Your task to perform on an android device: Search for apple airpods pro on bestbuy.com, select the first entry, add it to the cart, then select checkout. Image 0: 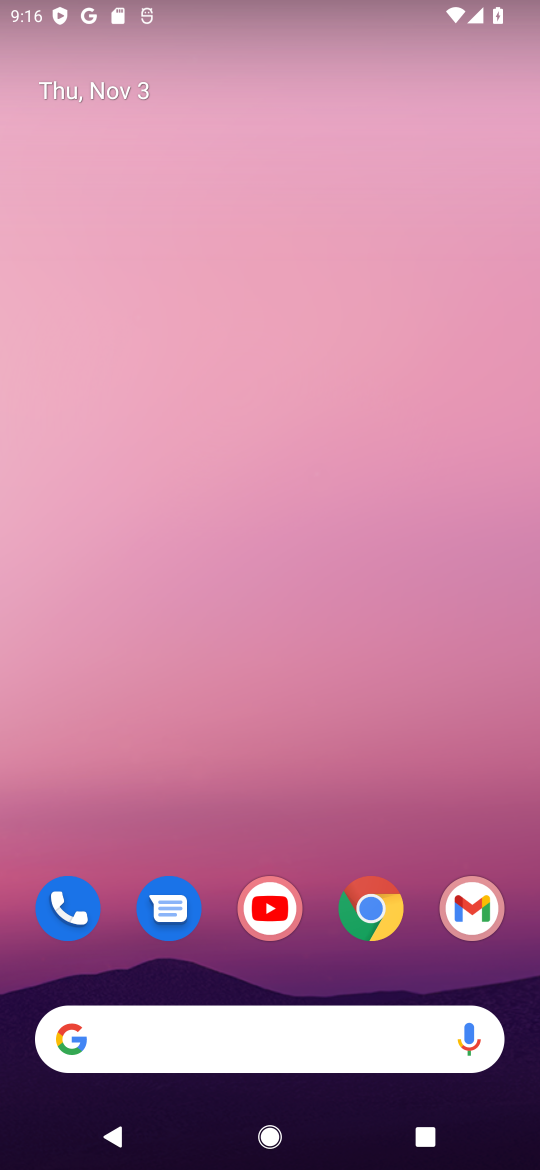
Step 0: click (374, 910)
Your task to perform on an android device: Search for apple airpods pro on bestbuy.com, select the first entry, add it to the cart, then select checkout. Image 1: 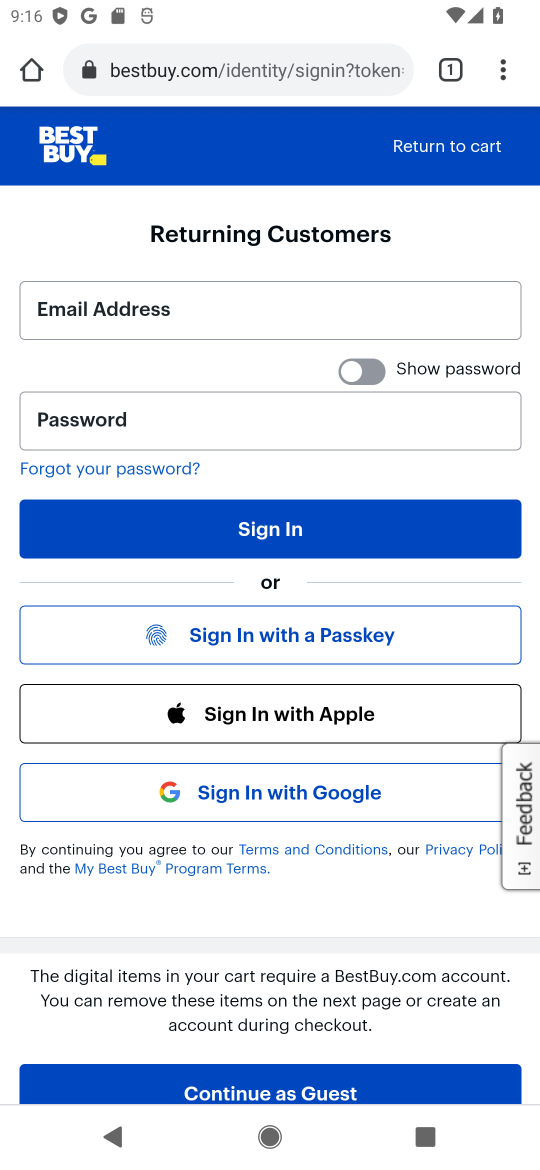
Step 1: press back button
Your task to perform on an android device: Search for apple airpods pro on bestbuy.com, select the first entry, add it to the cart, then select checkout. Image 2: 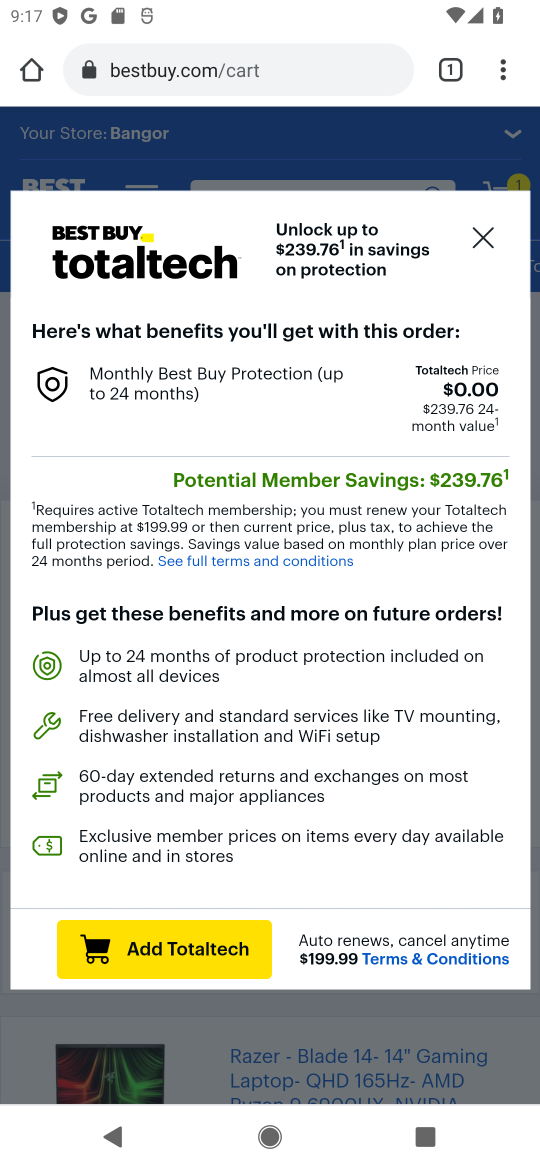
Step 2: click (487, 239)
Your task to perform on an android device: Search for apple airpods pro on bestbuy.com, select the first entry, add it to the cart, then select checkout. Image 3: 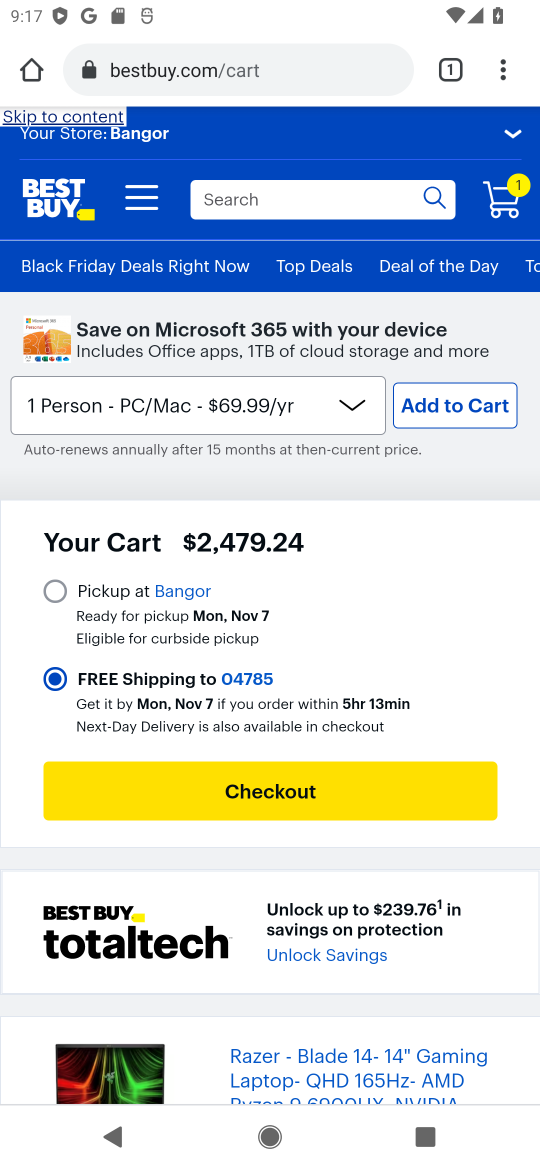
Step 3: click (399, 187)
Your task to perform on an android device: Search for apple airpods pro on bestbuy.com, select the first entry, add it to the cart, then select checkout. Image 4: 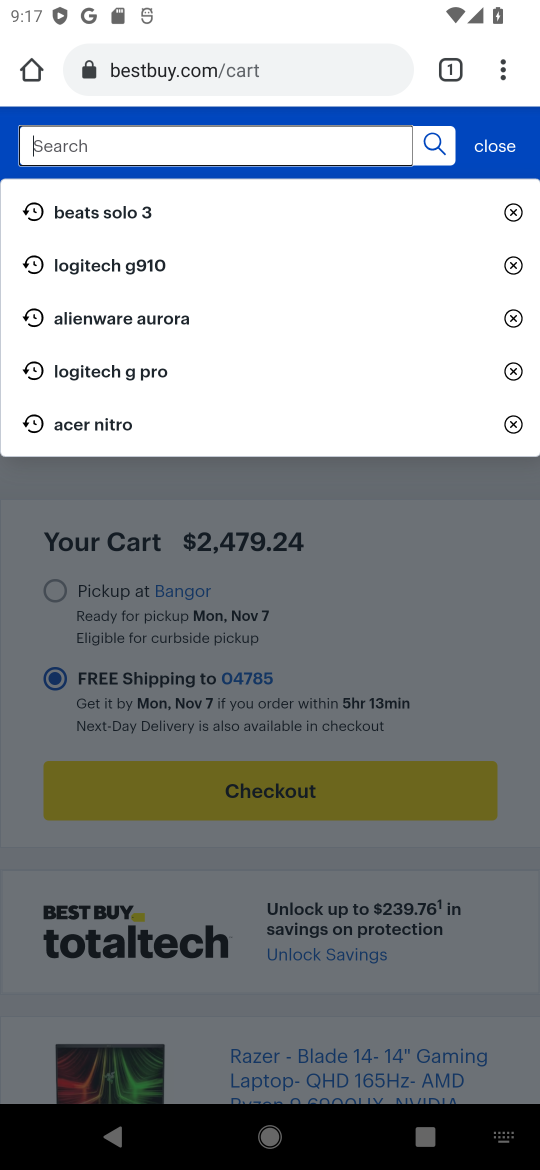
Step 4: type "apple airpods pro"
Your task to perform on an android device: Search for apple airpods pro on bestbuy.com, select the first entry, add it to the cart, then select checkout. Image 5: 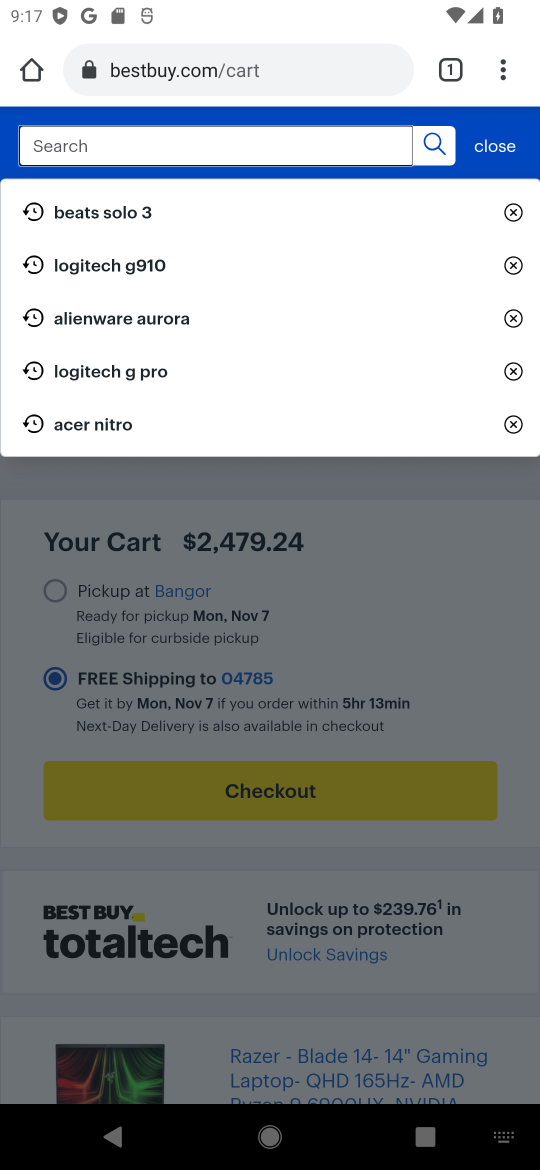
Step 5: press enter
Your task to perform on an android device: Search for apple airpods pro on bestbuy.com, select the first entry, add it to the cart, then select checkout. Image 6: 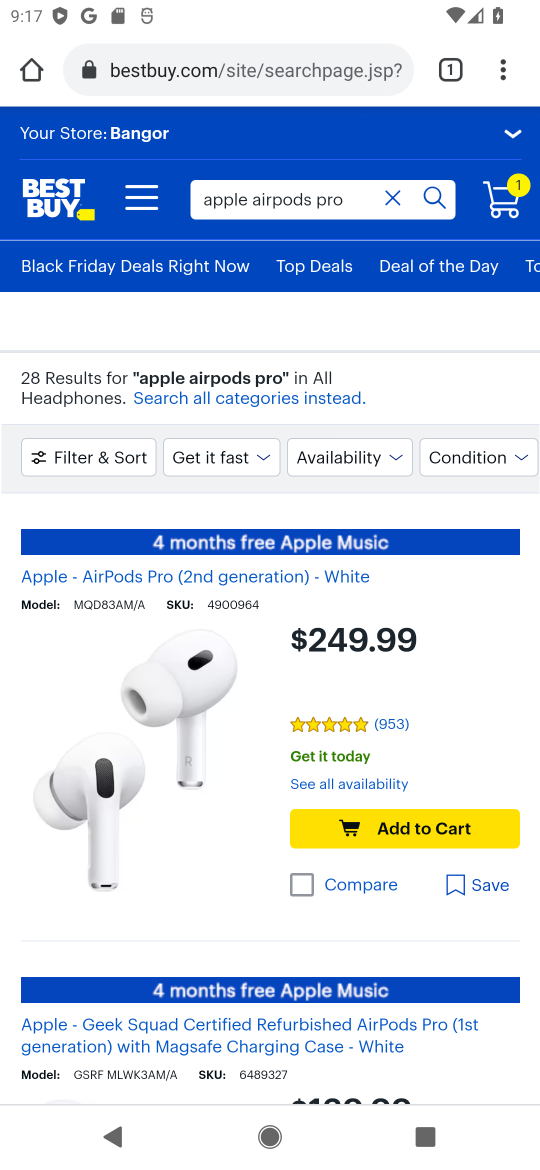
Step 6: click (122, 740)
Your task to perform on an android device: Search for apple airpods pro on bestbuy.com, select the first entry, add it to the cart, then select checkout. Image 7: 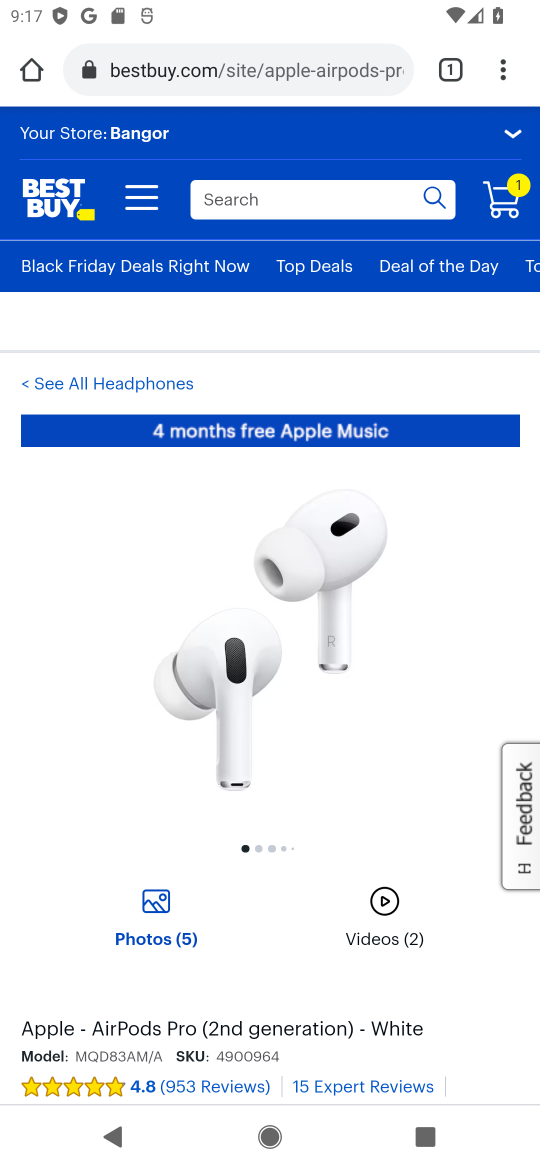
Step 7: drag from (274, 685) to (282, 390)
Your task to perform on an android device: Search for apple airpods pro on bestbuy.com, select the first entry, add it to the cart, then select checkout. Image 8: 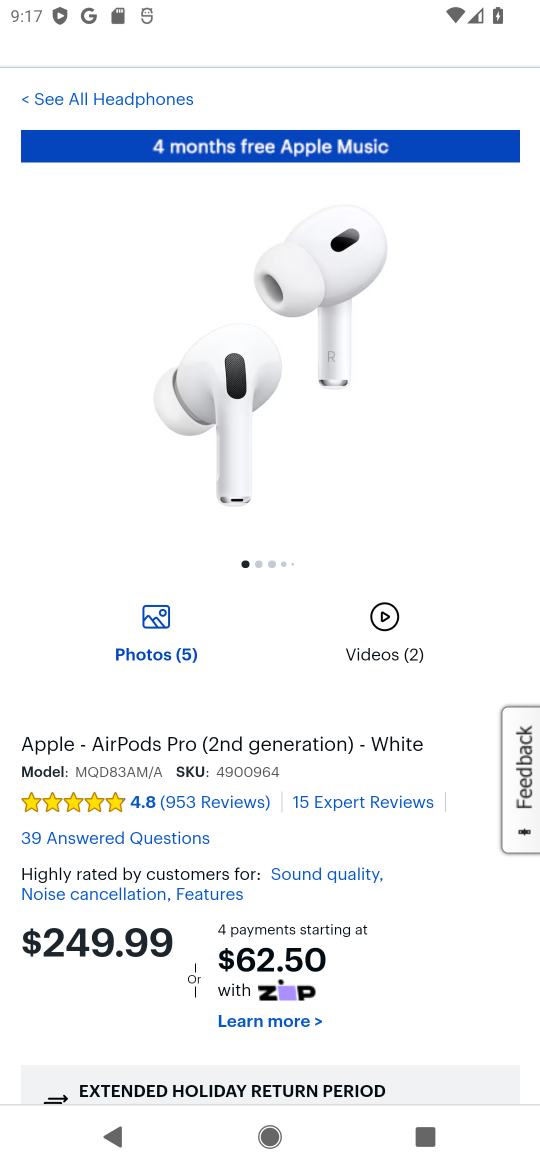
Step 8: drag from (302, 920) to (306, 613)
Your task to perform on an android device: Search for apple airpods pro on bestbuy.com, select the first entry, add it to the cart, then select checkout. Image 9: 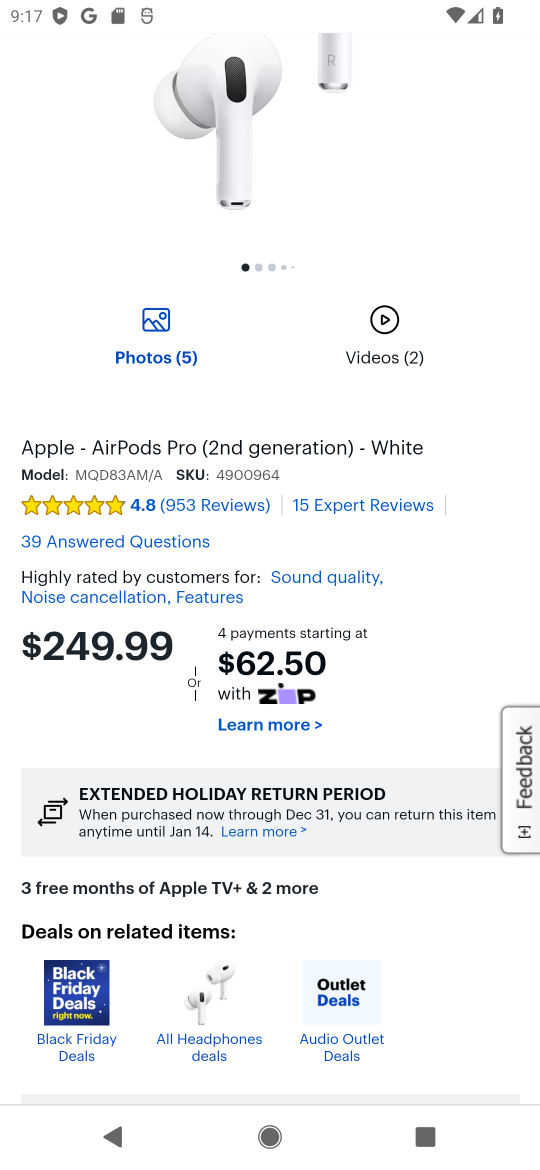
Step 9: drag from (419, 881) to (377, 484)
Your task to perform on an android device: Search for apple airpods pro on bestbuy.com, select the first entry, add it to the cart, then select checkout. Image 10: 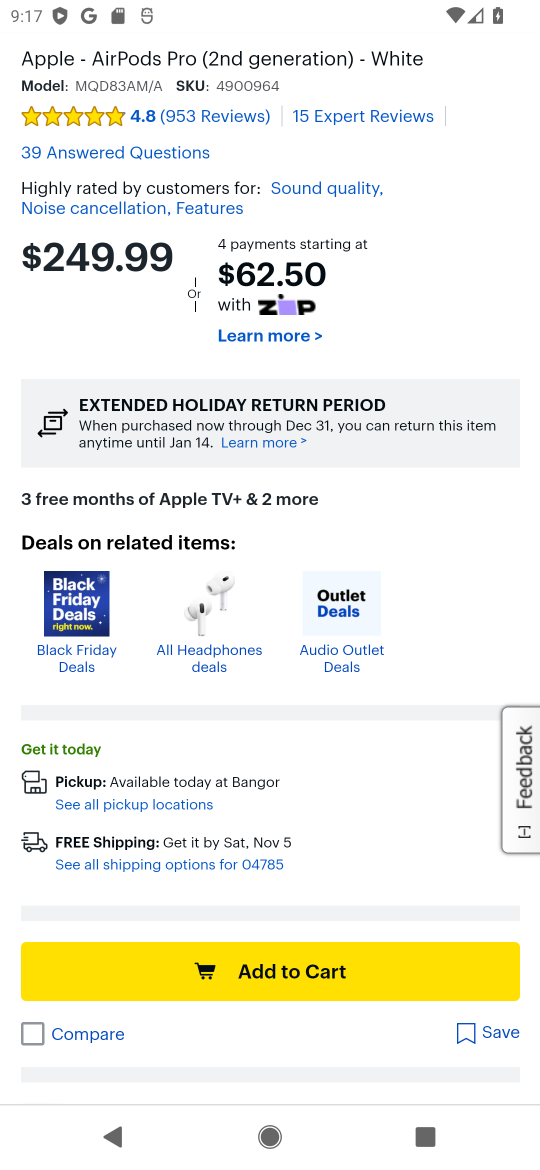
Step 10: click (396, 966)
Your task to perform on an android device: Search for apple airpods pro on bestbuy.com, select the first entry, add it to the cart, then select checkout. Image 11: 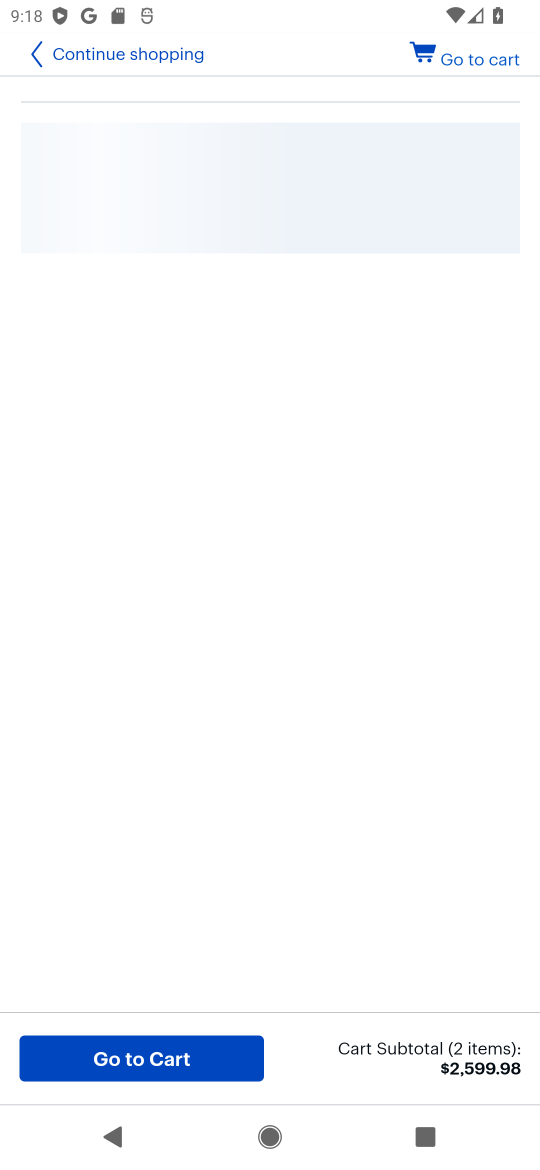
Step 11: click (159, 1062)
Your task to perform on an android device: Search for apple airpods pro on bestbuy.com, select the first entry, add it to the cart, then select checkout. Image 12: 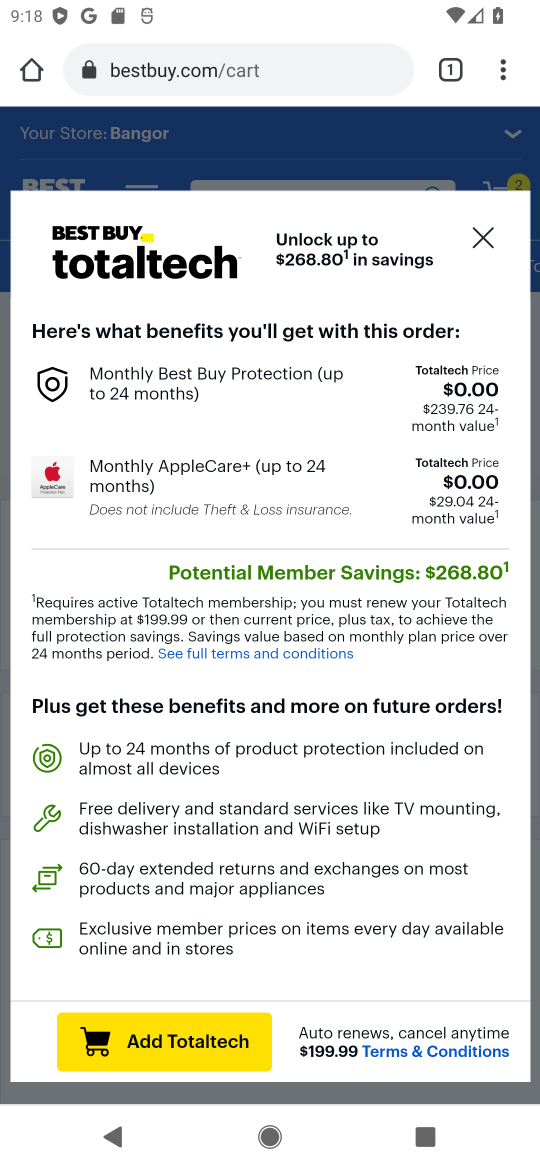
Step 12: click (478, 228)
Your task to perform on an android device: Search for apple airpods pro on bestbuy.com, select the first entry, add it to the cart, then select checkout. Image 13: 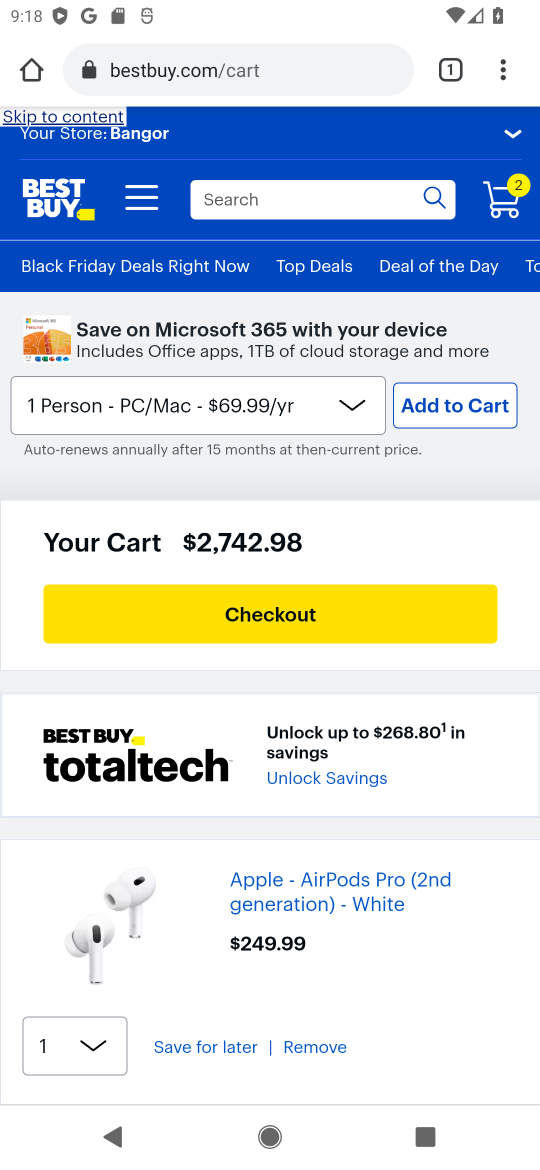
Step 13: click (278, 613)
Your task to perform on an android device: Search for apple airpods pro on bestbuy.com, select the first entry, add it to the cart, then select checkout. Image 14: 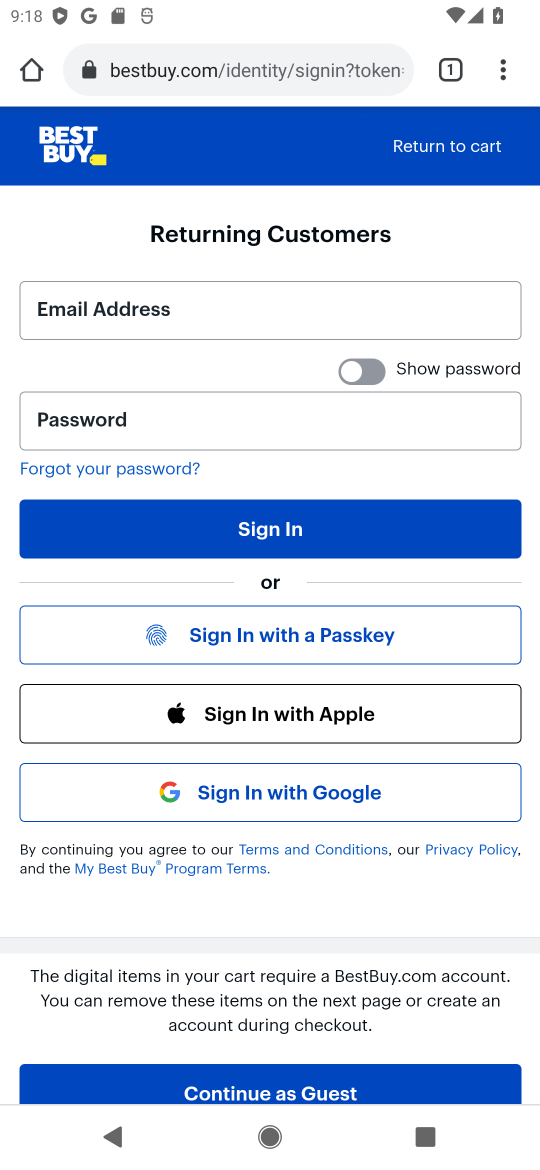
Step 14: task complete